Your task to perform on an android device: move a message to another label in the gmail app Image 0: 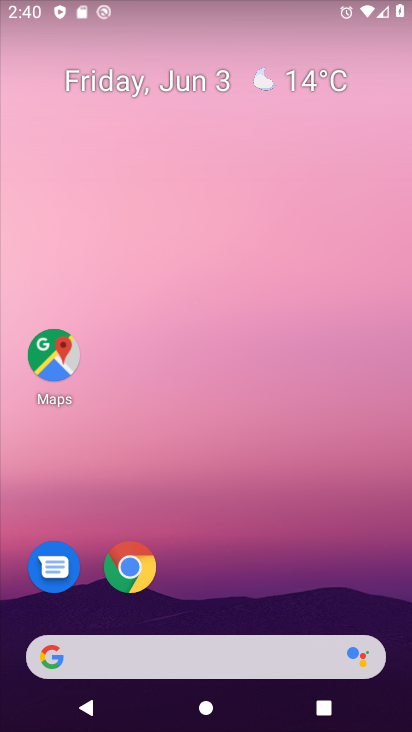
Step 0: drag from (232, 662) to (180, 4)
Your task to perform on an android device: move a message to another label in the gmail app Image 1: 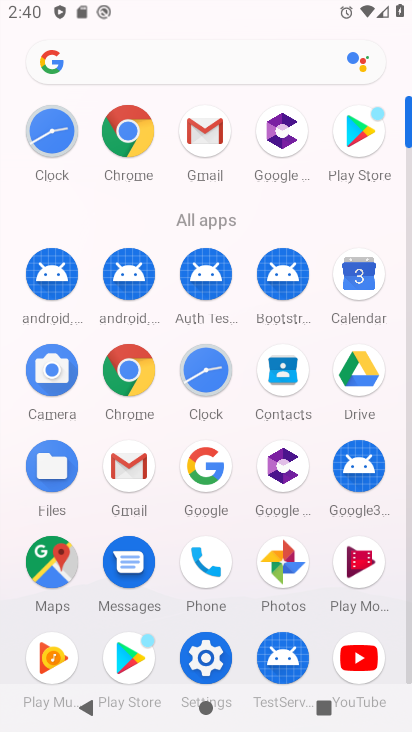
Step 1: click (147, 473)
Your task to perform on an android device: move a message to another label in the gmail app Image 2: 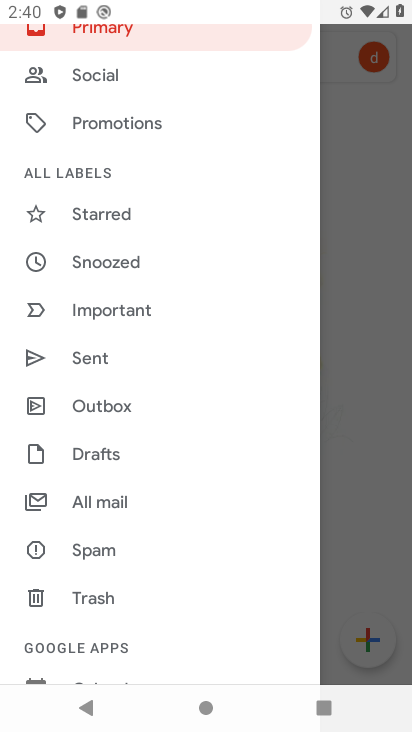
Step 2: drag from (114, 563) to (145, 309)
Your task to perform on an android device: move a message to another label in the gmail app Image 3: 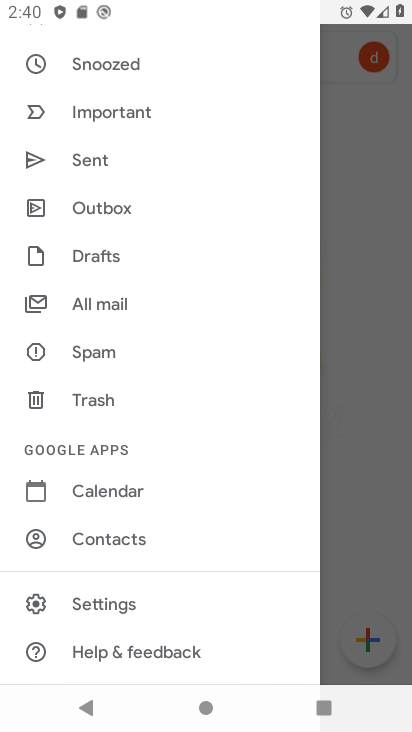
Step 3: click (96, 602)
Your task to perform on an android device: move a message to another label in the gmail app Image 4: 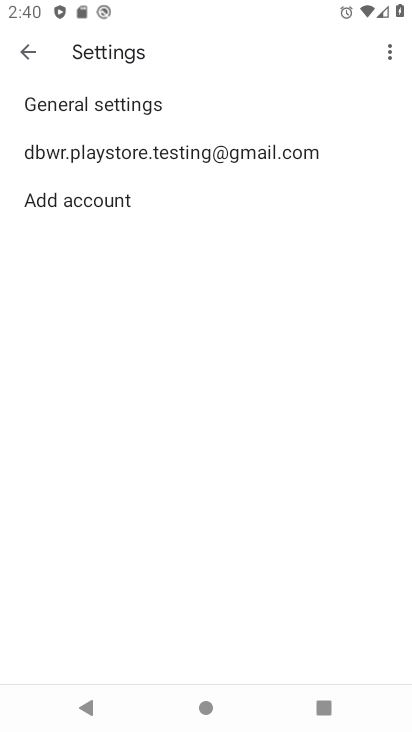
Step 4: click (126, 140)
Your task to perform on an android device: move a message to another label in the gmail app Image 5: 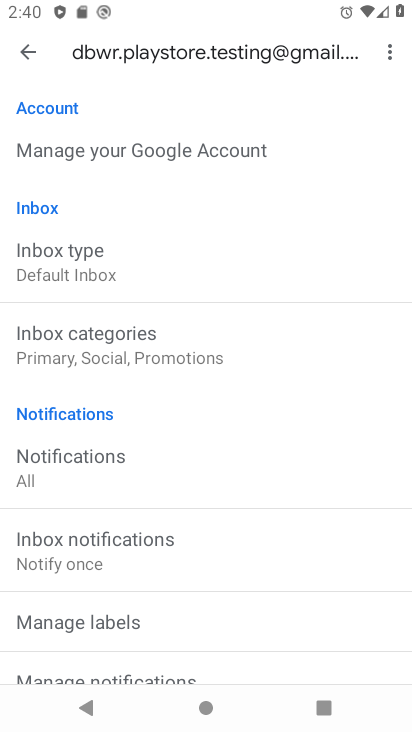
Step 5: click (128, 619)
Your task to perform on an android device: move a message to another label in the gmail app Image 6: 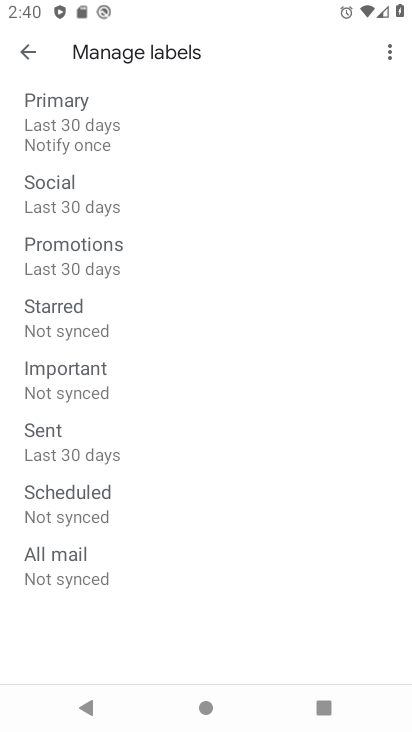
Step 6: click (89, 371)
Your task to perform on an android device: move a message to another label in the gmail app Image 7: 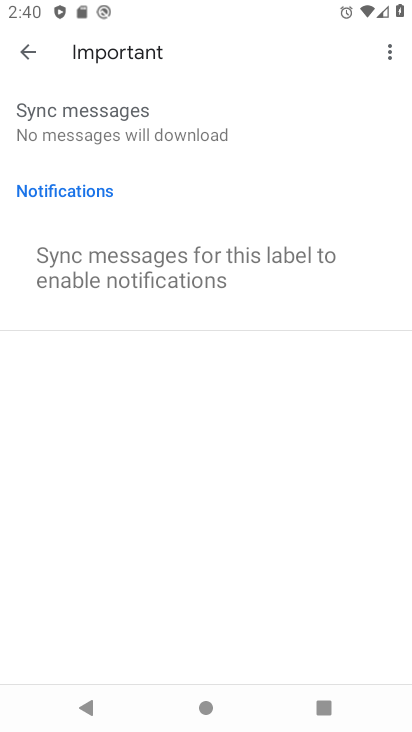
Step 7: task complete